Your task to perform on an android device: View the shopping cart on ebay. Add logitech g502 to the cart on ebay Image 0: 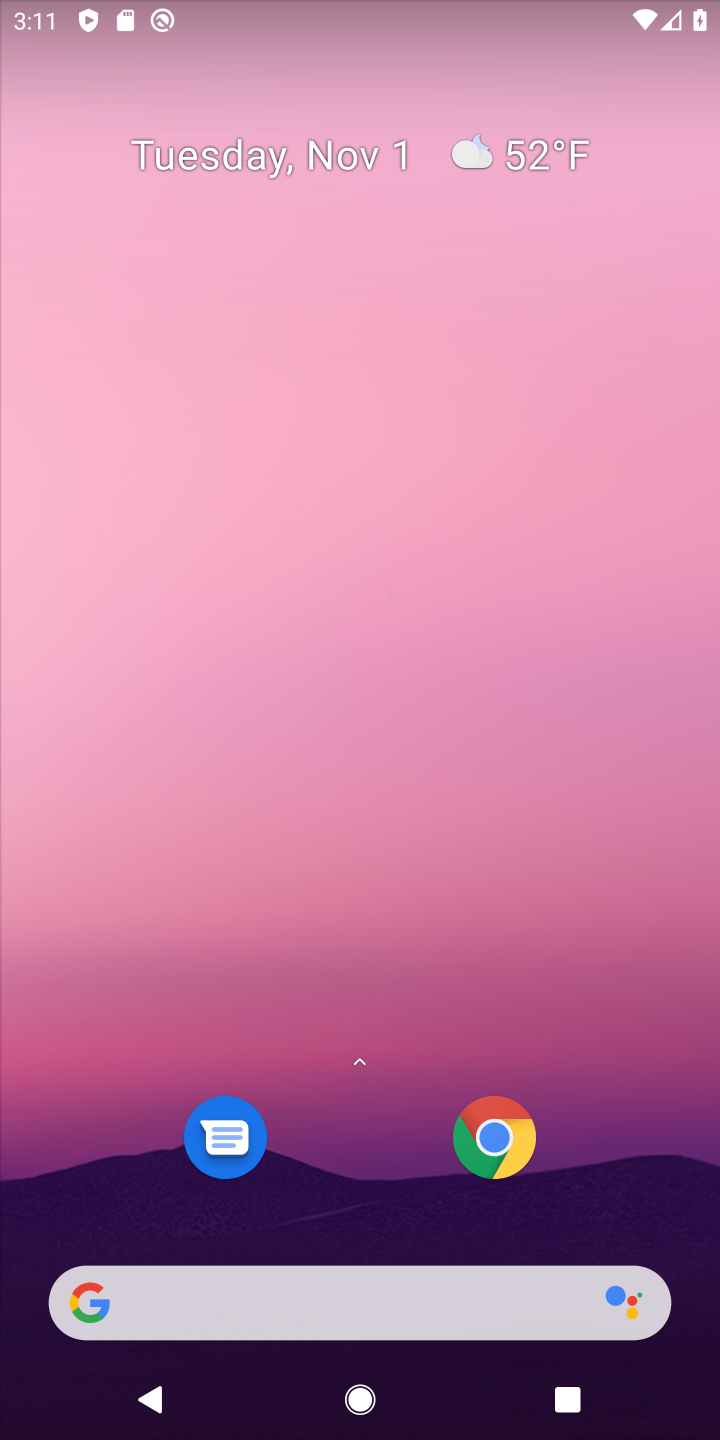
Step 0: click (293, 1315)
Your task to perform on an android device: View the shopping cart on ebay. Add logitech g502 to the cart on ebay Image 1: 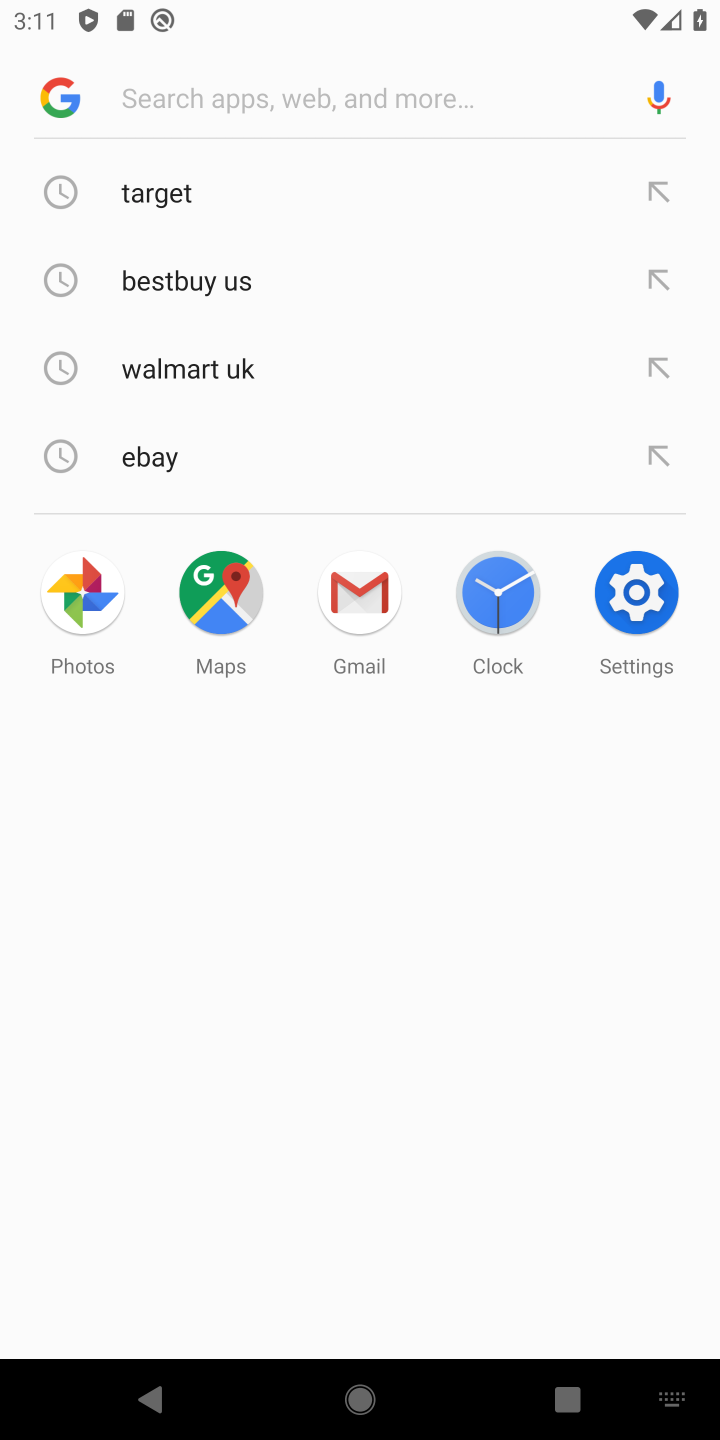
Step 1: type "ebay"
Your task to perform on an android device: View the shopping cart on ebay. Add logitech g502 to the cart on ebay Image 2: 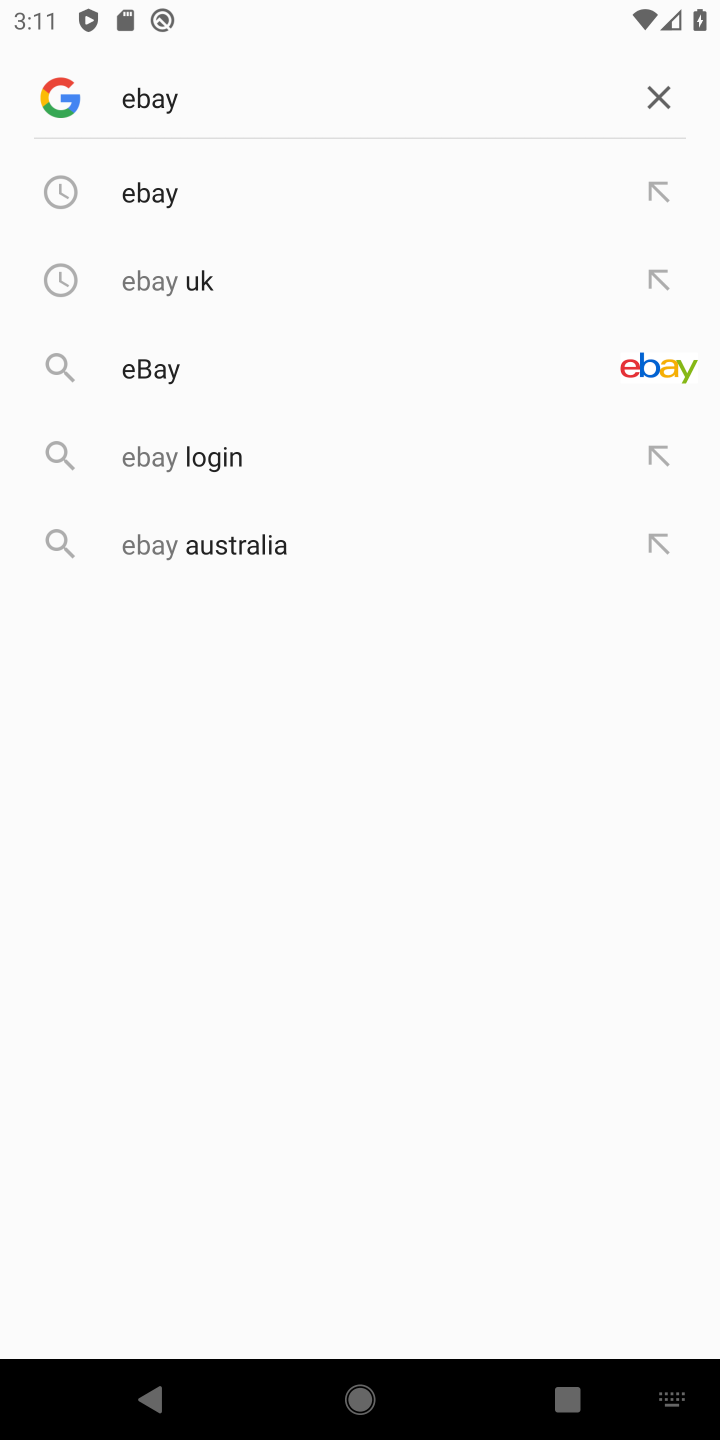
Step 2: click (212, 186)
Your task to perform on an android device: View the shopping cart on ebay. Add logitech g502 to the cart on ebay Image 3: 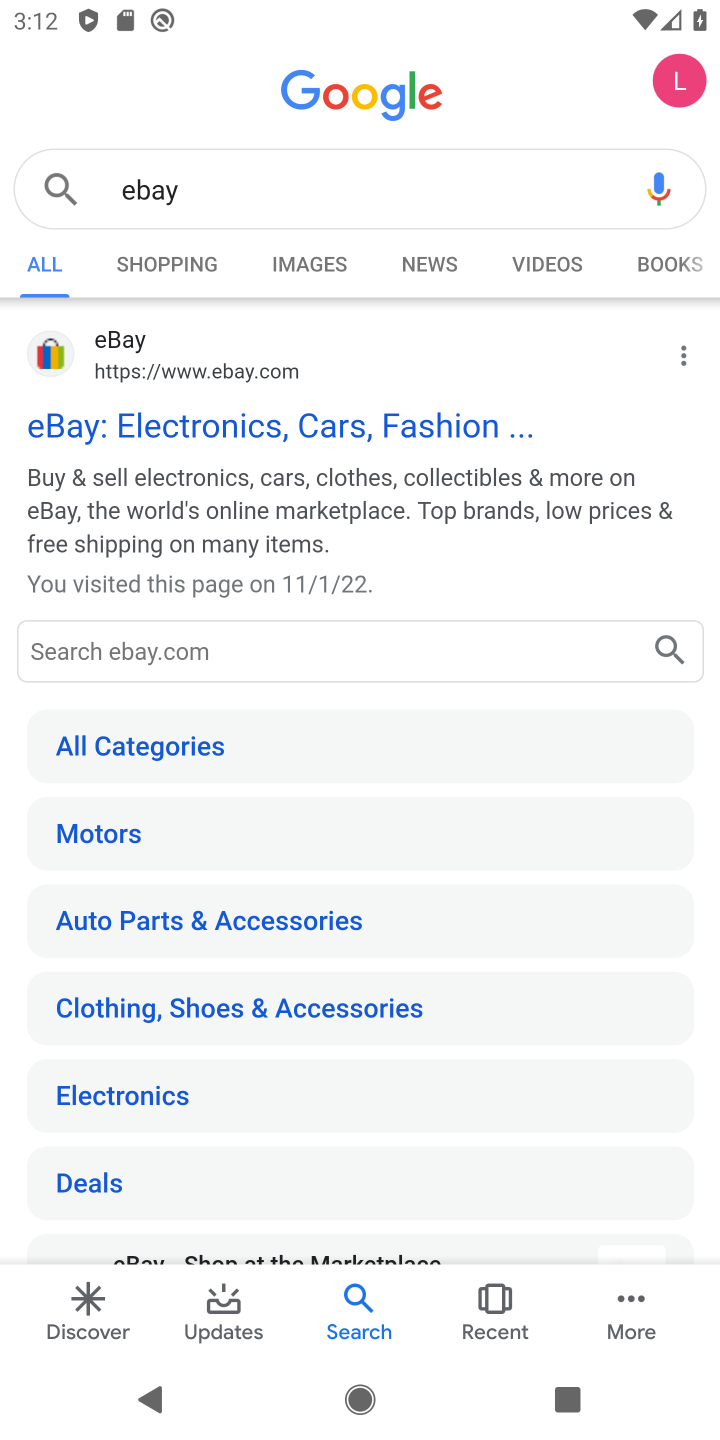
Step 3: click (287, 431)
Your task to perform on an android device: View the shopping cart on ebay. Add logitech g502 to the cart on ebay Image 4: 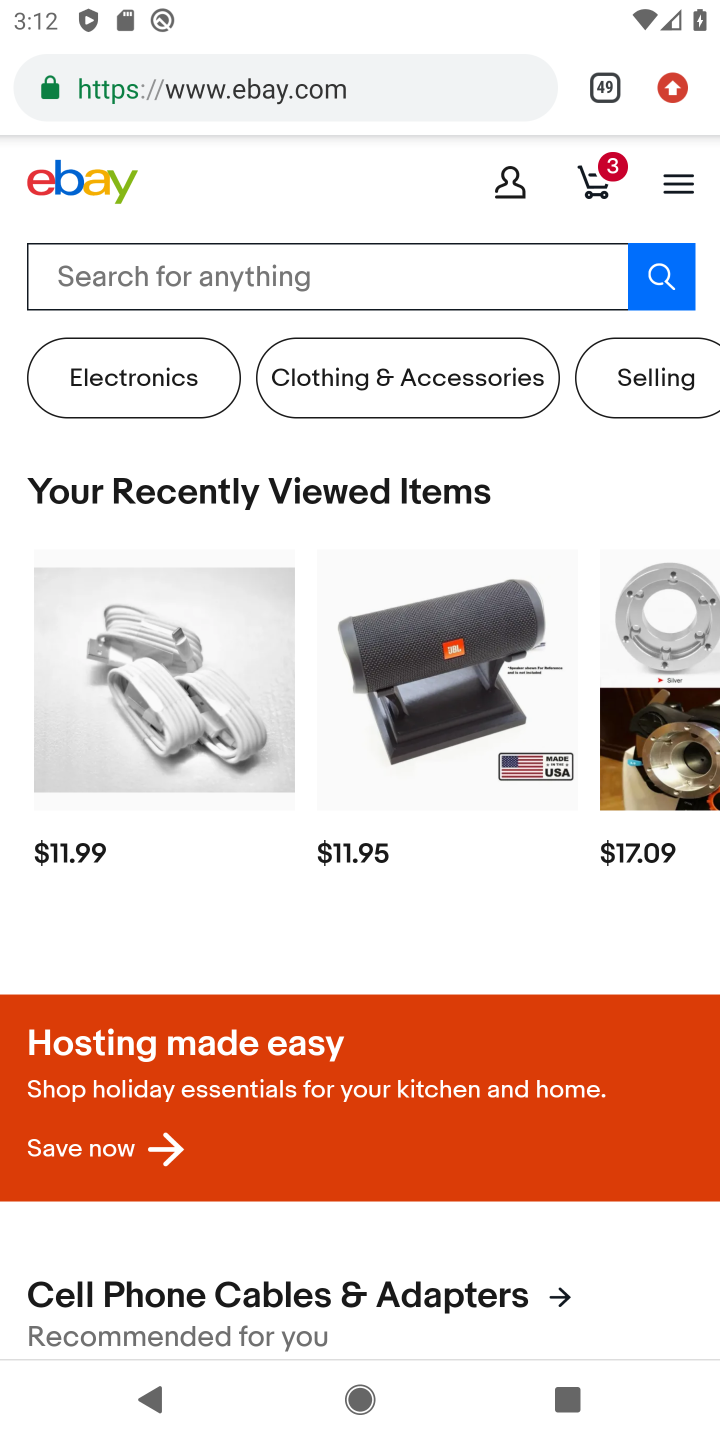
Step 4: task complete